Your task to perform on an android device: delete location history Image 0: 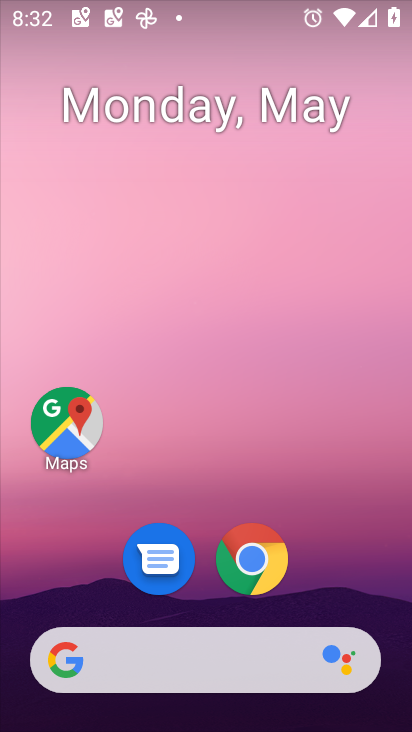
Step 0: drag from (396, 605) to (325, 132)
Your task to perform on an android device: delete location history Image 1: 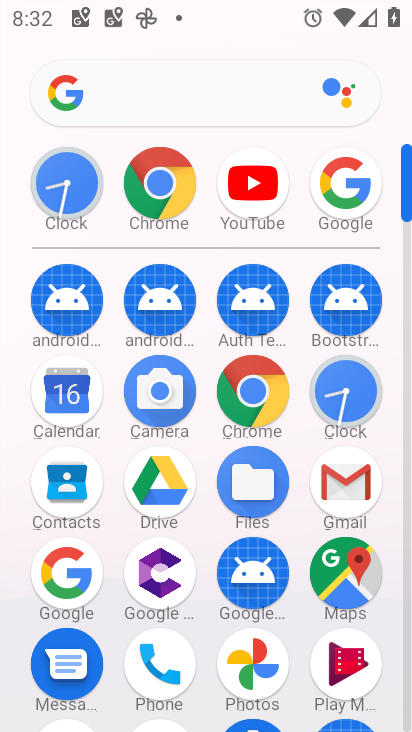
Step 1: drag from (295, 681) to (313, 309)
Your task to perform on an android device: delete location history Image 2: 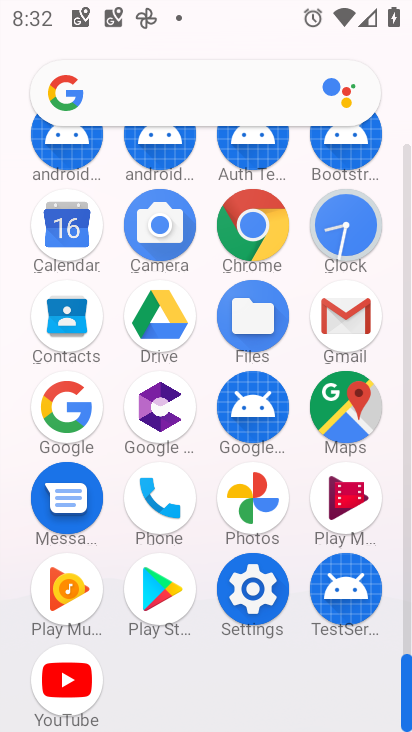
Step 2: click (251, 606)
Your task to perform on an android device: delete location history Image 3: 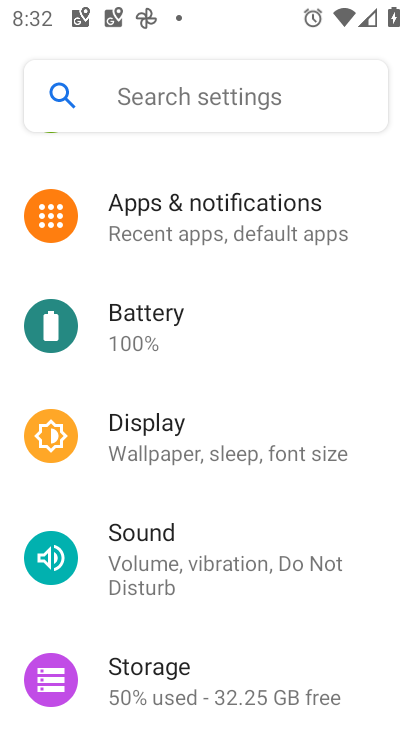
Step 3: drag from (166, 664) to (182, 238)
Your task to perform on an android device: delete location history Image 4: 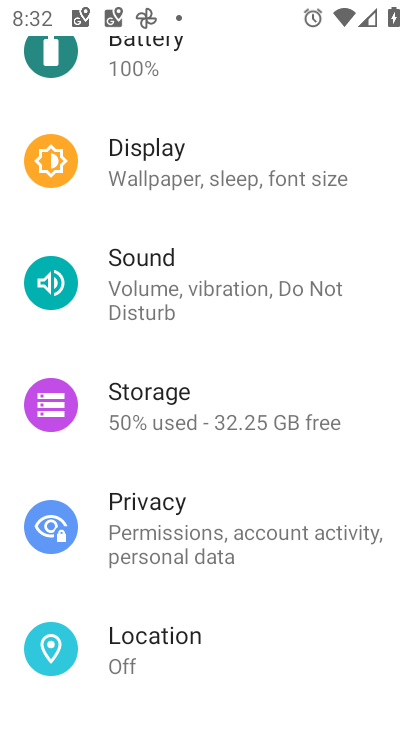
Step 4: click (175, 665)
Your task to perform on an android device: delete location history Image 5: 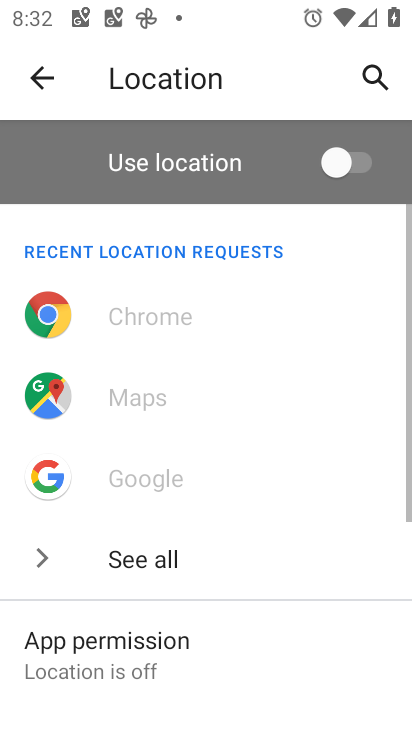
Step 5: drag from (175, 665) to (163, 210)
Your task to perform on an android device: delete location history Image 6: 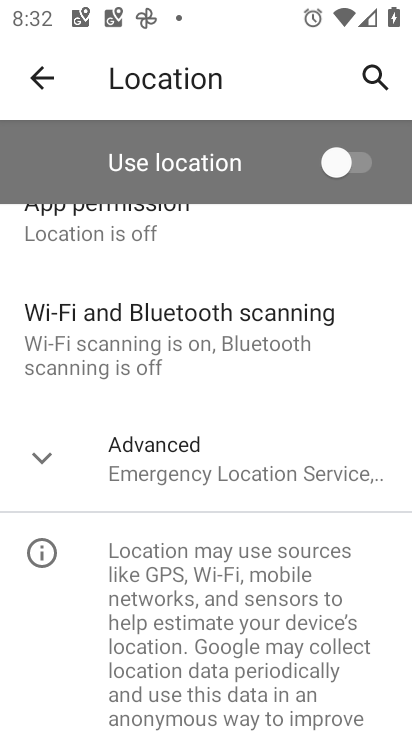
Step 6: click (110, 464)
Your task to perform on an android device: delete location history Image 7: 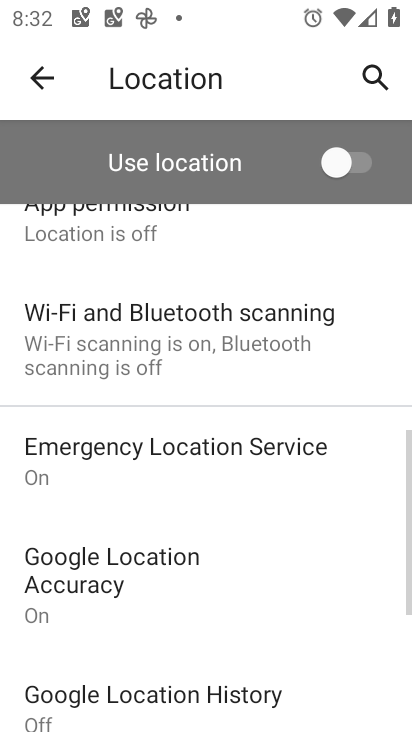
Step 7: click (145, 691)
Your task to perform on an android device: delete location history Image 8: 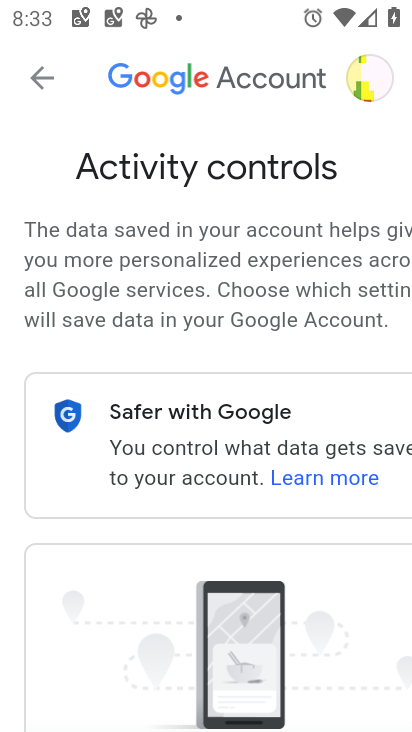
Step 8: drag from (323, 650) to (201, 104)
Your task to perform on an android device: delete location history Image 9: 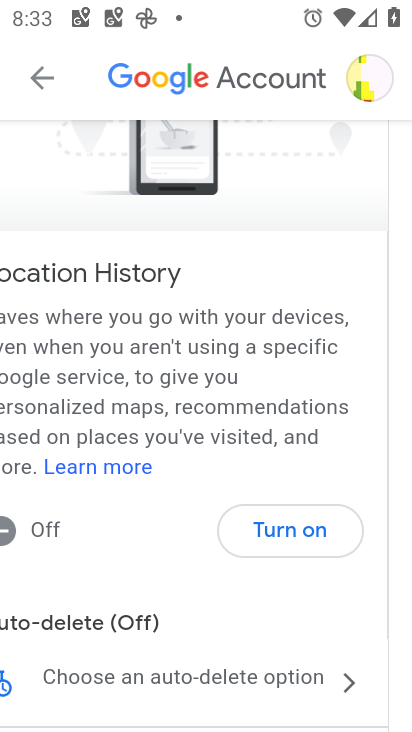
Step 9: click (183, 697)
Your task to perform on an android device: delete location history Image 10: 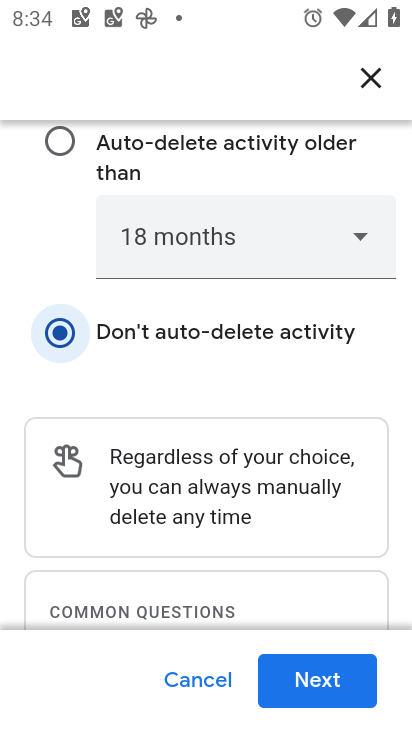
Step 10: click (288, 689)
Your task to perform on an android device: delete location history Image 11: 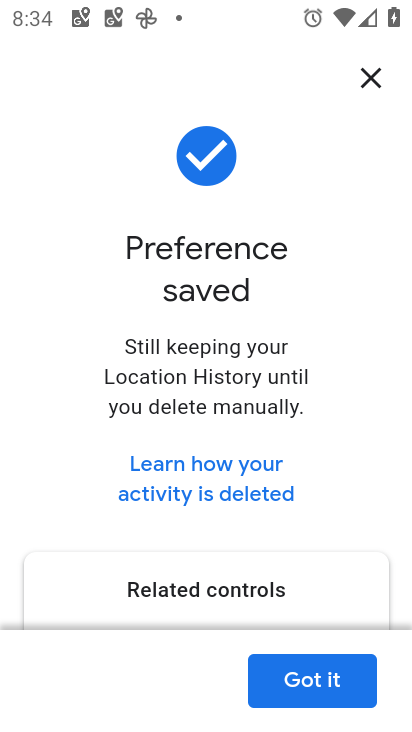
Step 11: click (293, 681)
Your task to perform on an android device: delete location history Image 12: 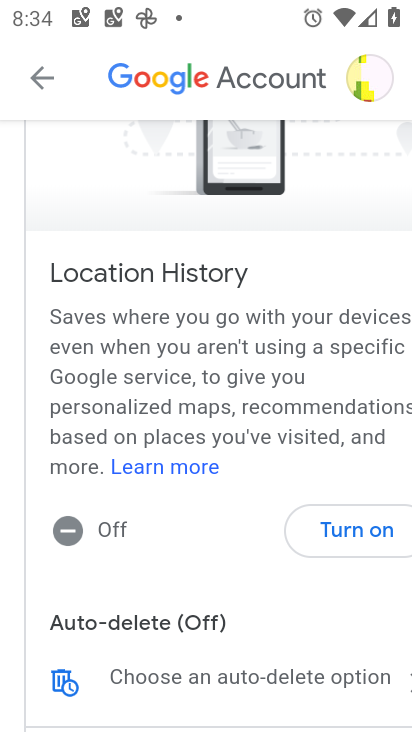
Step 12: task complete